Your task to perform on an android device: Go to eBay Image 0: 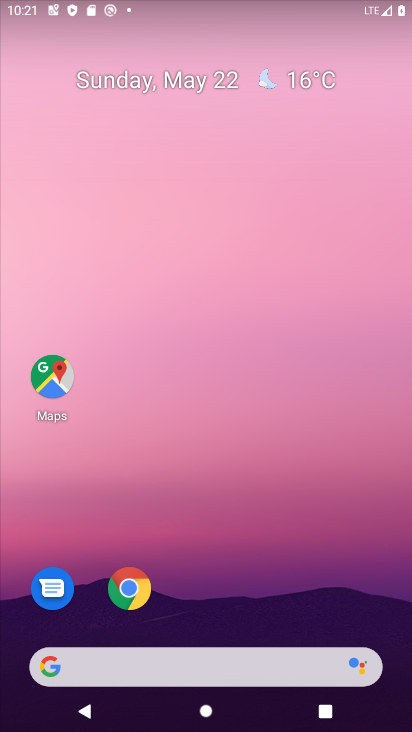
Step 0: click (132, 603)
Your task to perform on an android device: Go to eBay Image 1: 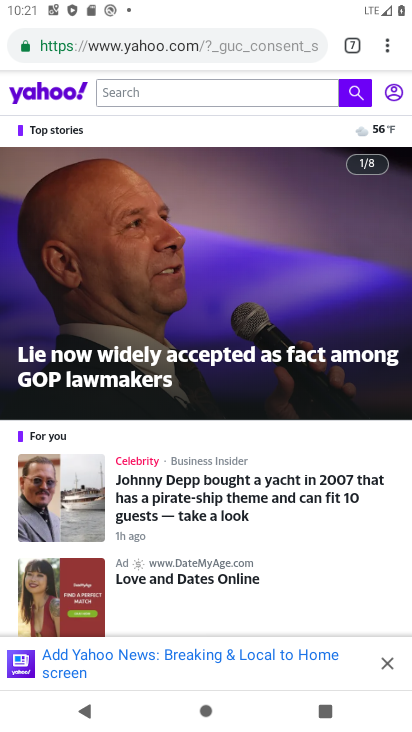
Step 1: click (350, 46)
Your task to perform on an android device: Go to eBay Image 2: 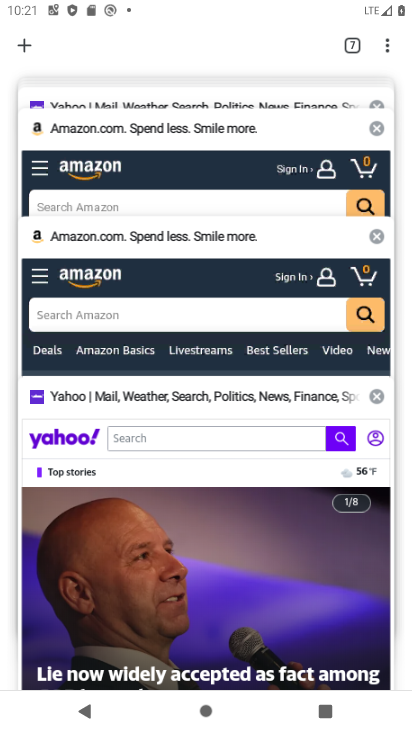
Step 2: click (26, 45)
Your task to perform on an android device: Go to eBay Image 3: 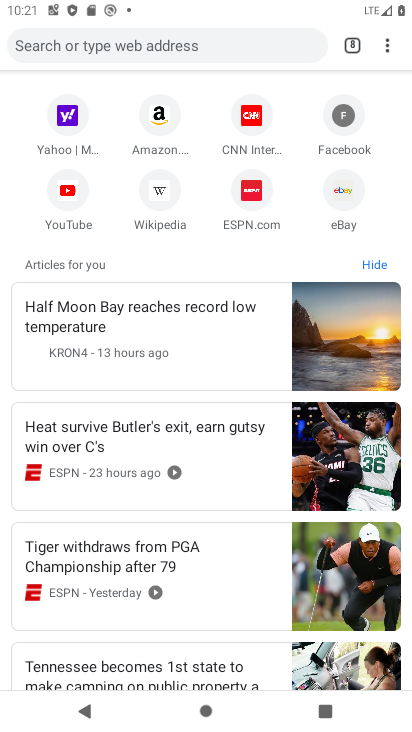
Step 3: click (180, 56)
Your task to perform on an android device: Go to eBay Image 4: 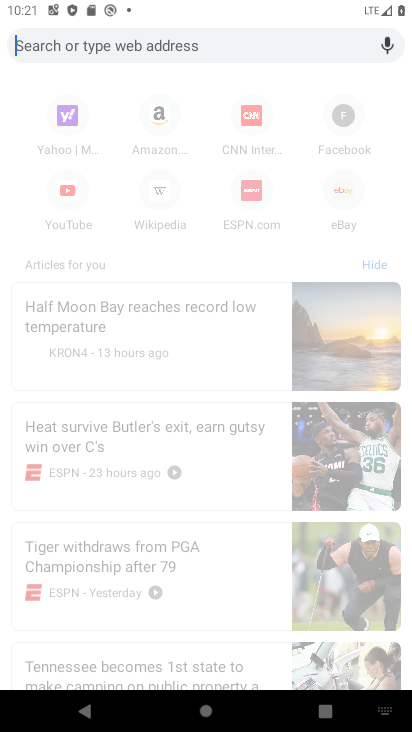
Step 4: click (336, 185)
Your task to perform on an android device: Go to eBay Image 5: 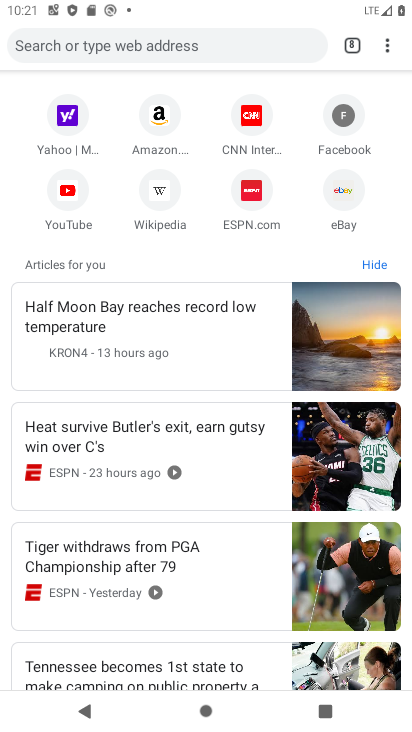
Step 5: click (336, 192)
Your task to perform on an android device: Go to eBay Image 6: 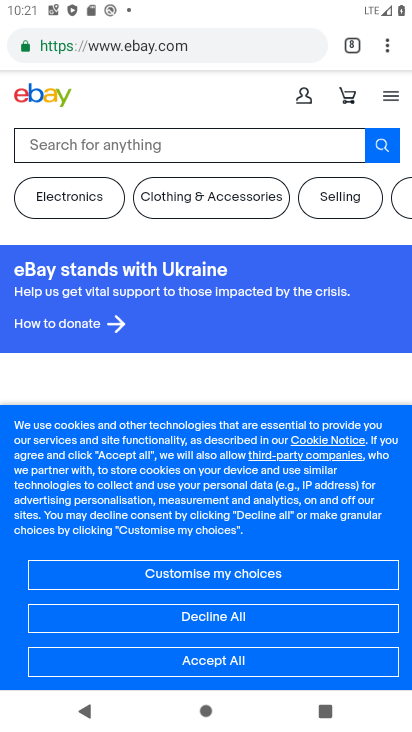
Step 6: task complete